Your task to perform on an android device: change the clock display to digital Image 0: 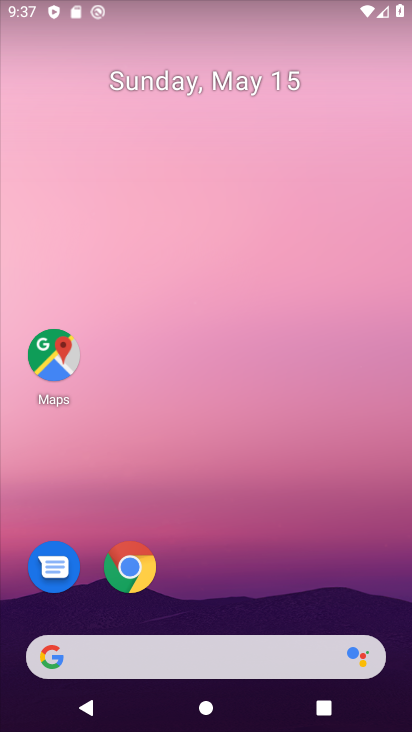
Step 0: drag from (220, 557) to (214, 128)
Your task to perform on an android device: change the clock display to digital Image 1: 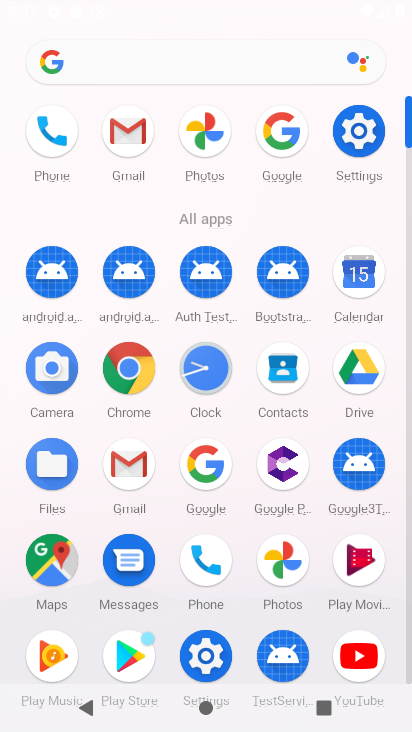
Step 1: click (208, 379)
Your task to perform on an android device: change the clock display to digital Image 2: 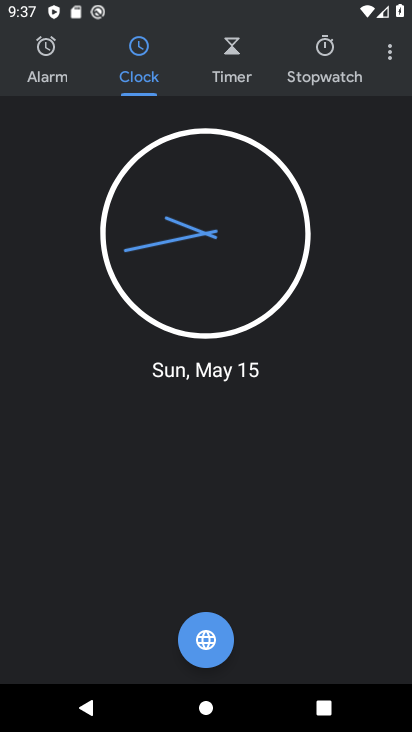
Step 2: click (384, 46)
Your task to perform on an android device: change the clock display to digital Image 3: 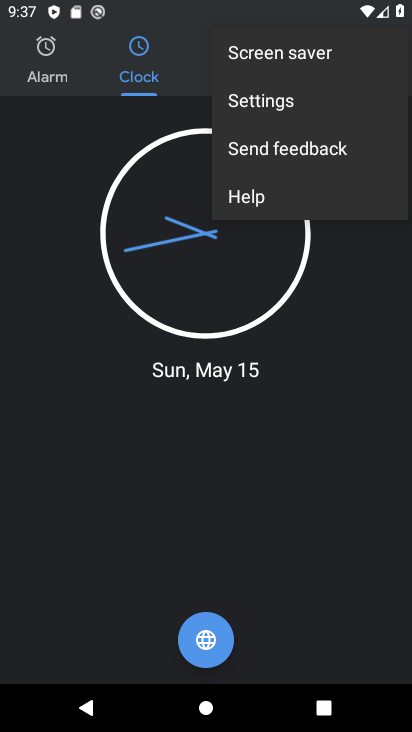
Step 3: click (262, 106)
Your task to perform on an android device: change the clock display to digital Image 4: 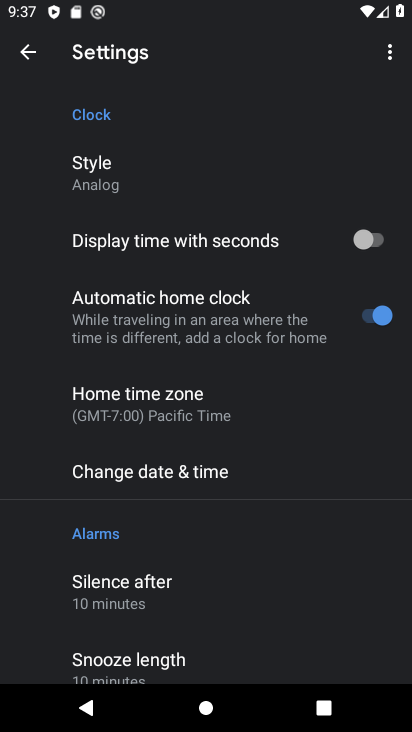
Step 4: click (119, 172)
Your task to perform on an android device: change the clock display to digital Image 5: 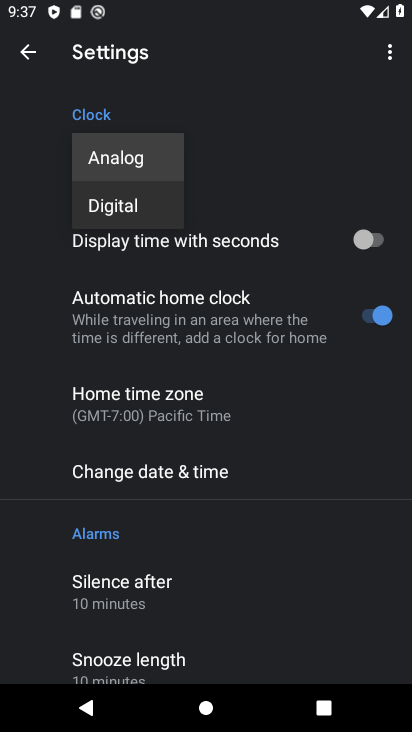
Step 5: click (130, 200)
Your task to perform on an android device: change the clock display to digital Image 6: 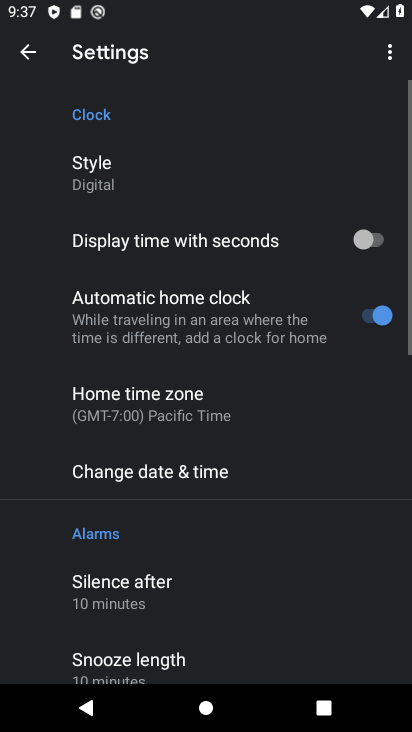
Step 6: task complete